Your task to perform on an android device: turn off notifications settings in the gmail app Image 0: 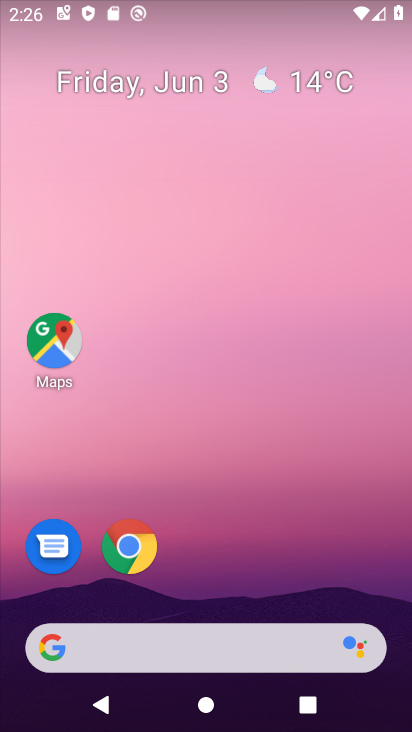
Step 0: drag from (338, 564) to (390, 4)
Your task to perform on an android device: turn off notifications settings in the gmail app Image 1: 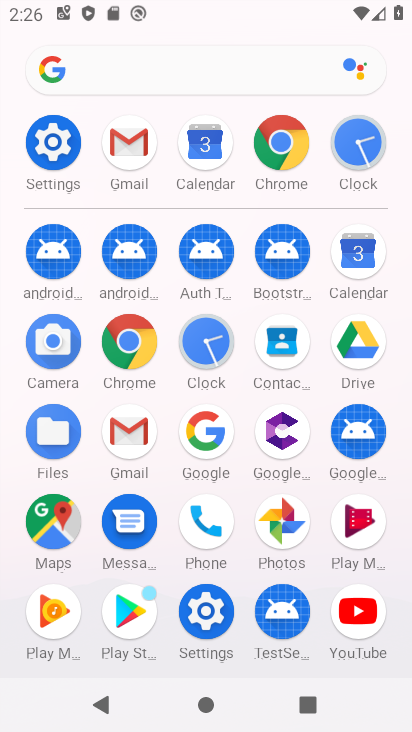
Step 1: click (150, 144)
Your task to perform on an android device: turn off notifications settings in the gmail app Image 2: 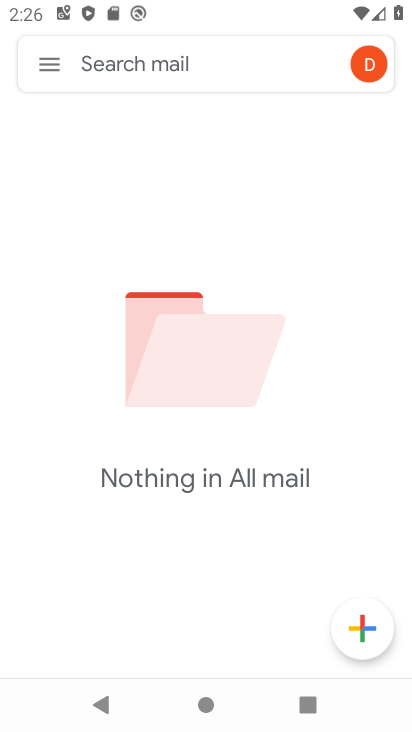
Step 2: click (6, 50)
Your task to perform on an android device: turn off notifications settings in the gmail app Image 3: 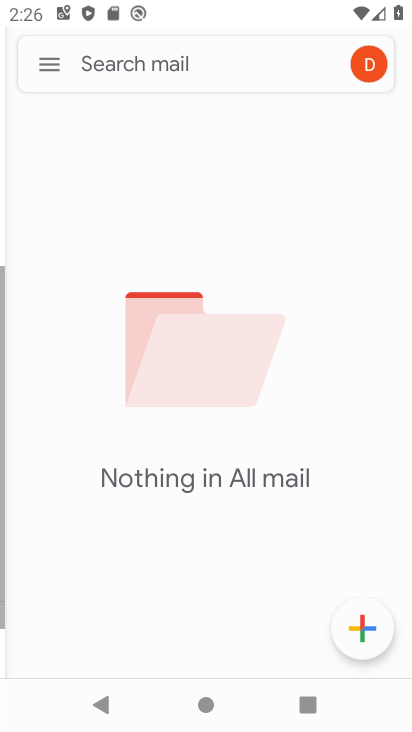
Step 3: click (34, 70)
Your task to perform on an android device: turn off notifications settings in the gmail app Image 4: 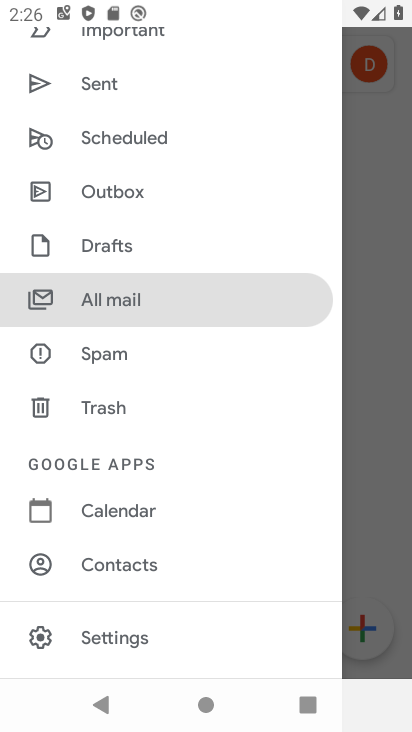
Step 4: drag from (144, 530) to (237, 100)
Your task to perform on an android device: turn off notifications settings in the gmail app Image 5: 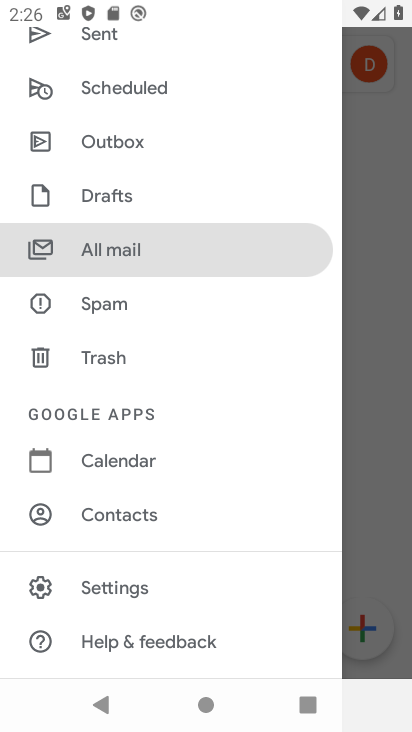
Step 5: click (120, 580)
Your task to perform on an android device: turn off notifications settings in the gmail app Image 6: 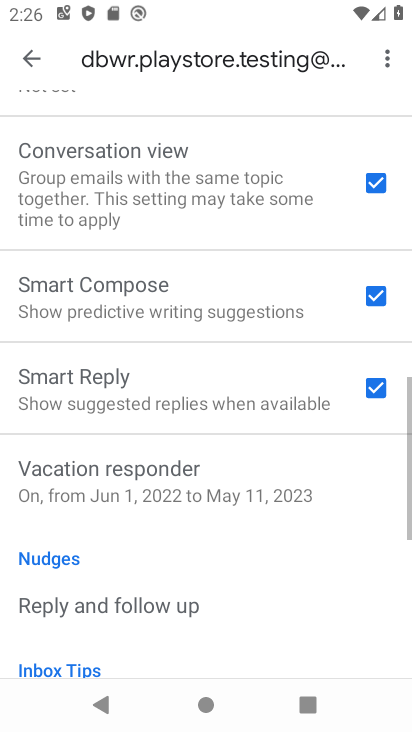
Step 6: drag from (103, 224) to (204, 641)
Your task to perform on an android device: turn off notifications settings in the gmail app Image 7: 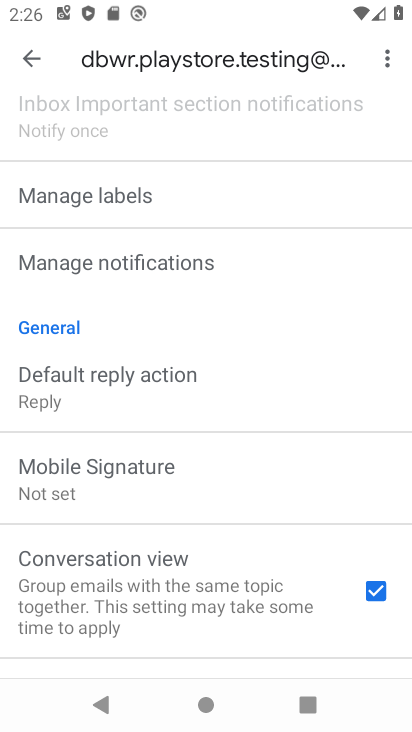
Step 7: drag from (168, 146) to (261, 670)
Your task to perform on an android device: turn off notifications settings in the gmail app Image 8: 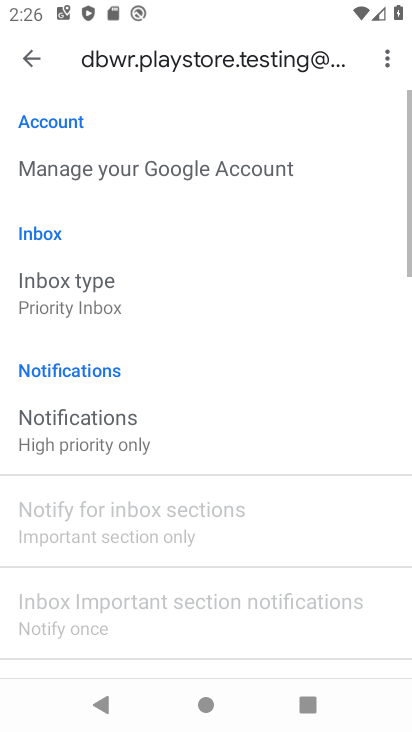
Step 8: drag from (190, 168) to (285, 655)
Your task to perform on an android device: turn off notifications settings in the gmail app Image 9: 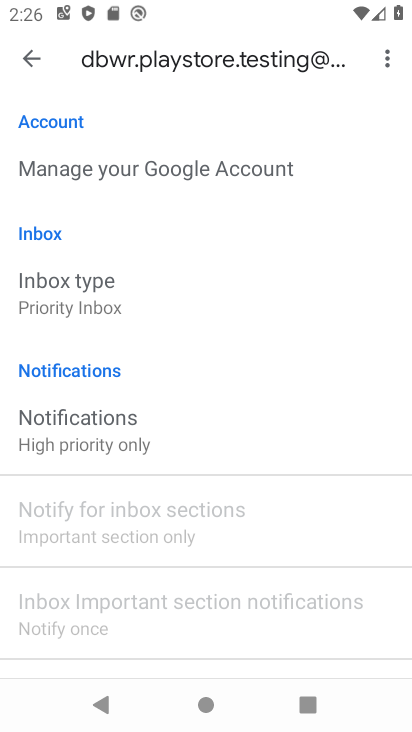
Step 9: click (119, 420)
Your task to perform on an android device: turn off notifications settings in the gmail app Image 10: 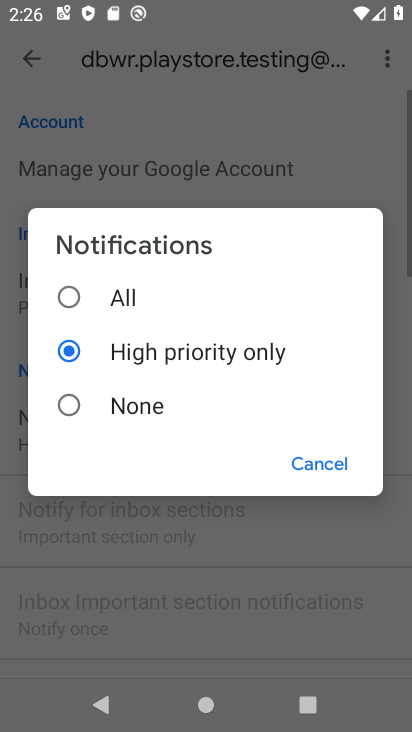
Step 10: click (128, 404)
Your task to perform on an android device: turn off notifications settings in the gmail app Image 11: 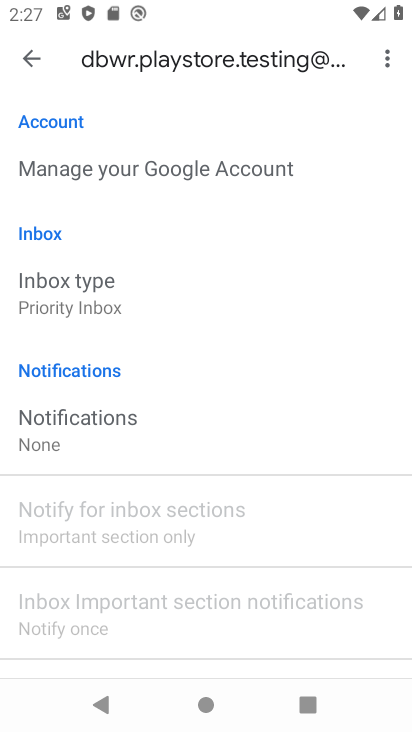
Step 11: task complete